Your task to perform on an android device: change notifications settings Image 0: 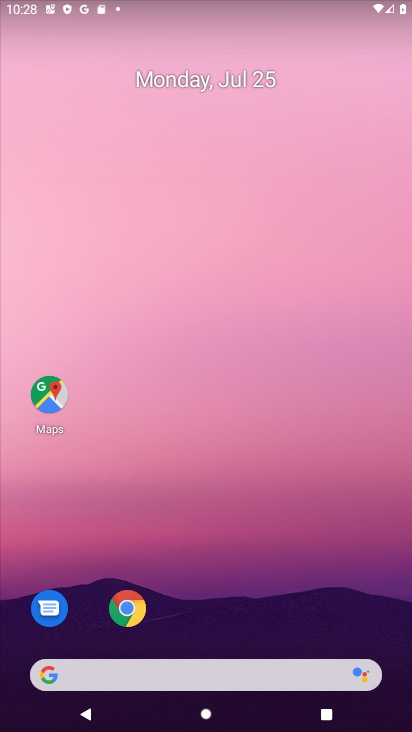
Step 0: drag from (227, 621) to (233, 350)
Your task to perform on an android device: change notifications settings Image 1: 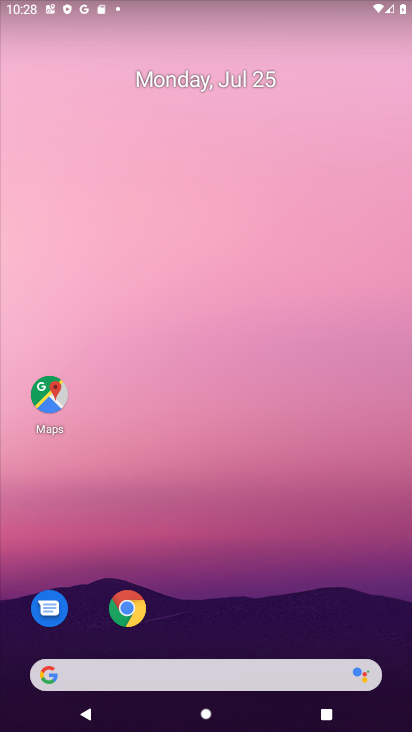
Step 1: drag from (263, 605) to (236, 147)
Your task to perform on an android device: change notifications settings Image 2: 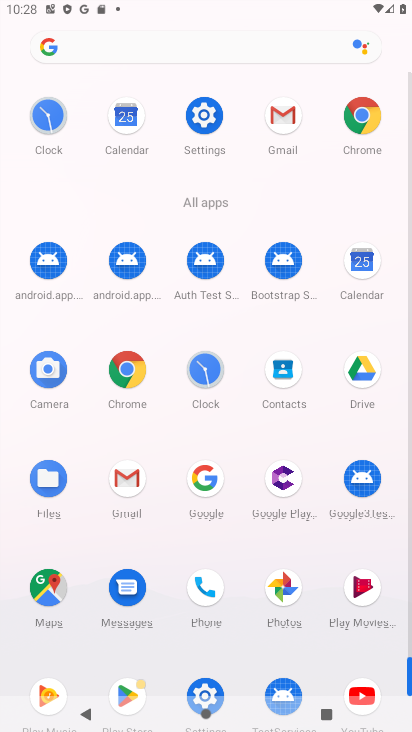
Step 2: click (193, 115)
Your task to perform on an android device: change notifications settings Image 3: 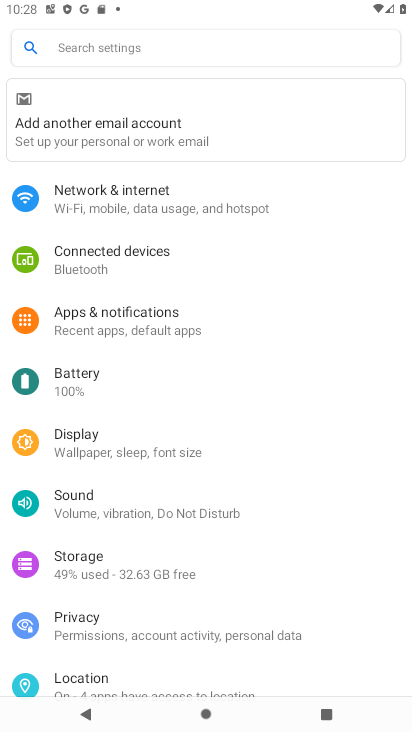
Step 3: click (146, 316)
Your task to perform on an android device: change notifications settings Image 4: 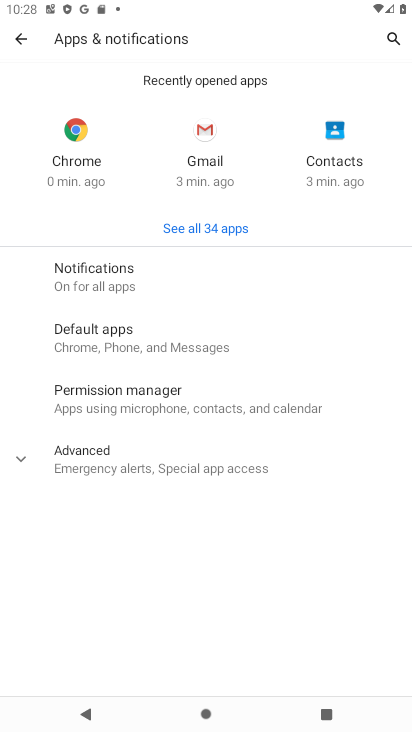
Step 4: click (119, 280)
Your task to perform on an android device: change notifications settings Image 5: 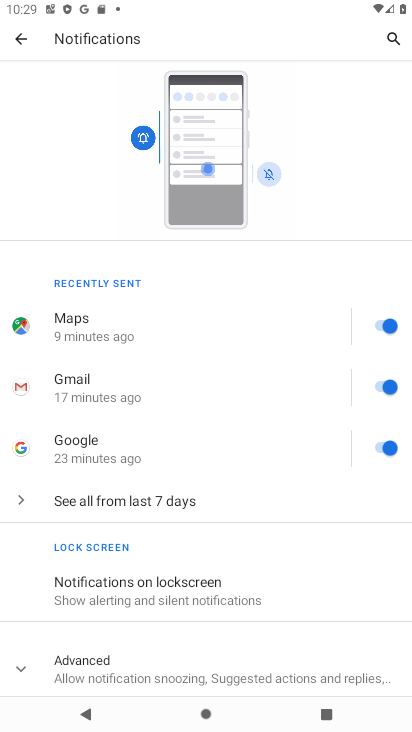
Step 5: click (176, 499)
Your task to perform on an android device: change notifications settings Image 6: 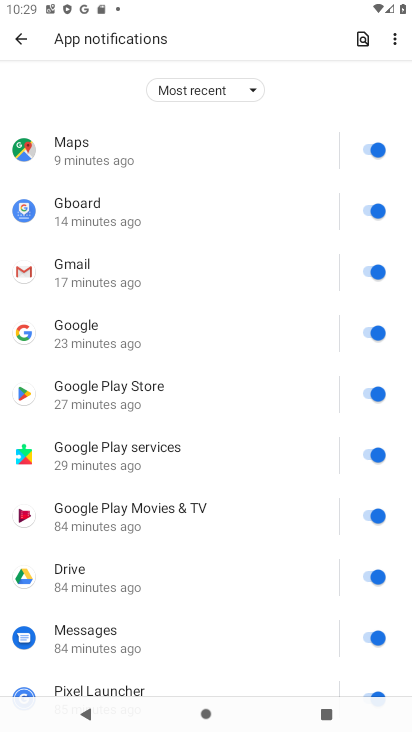
Step 6: click (373, 145)
Your task to perform on an android device: change notifications settings Image 7: 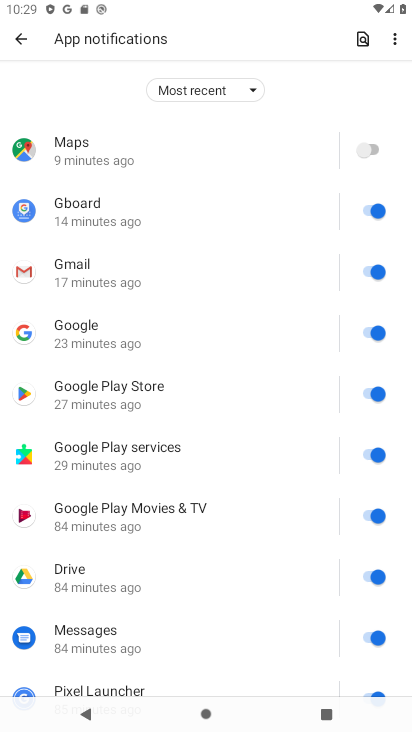
Step 7: click (368, 216)
Your task to perform on an android device: change notifications settings Image 8: 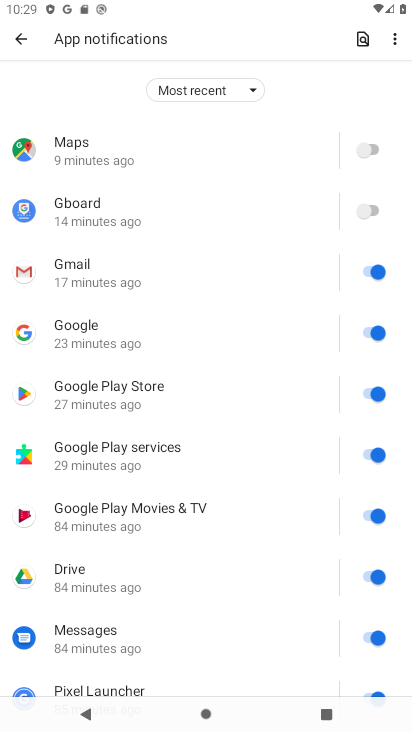
Step 8: click (376, 271)
Your task to perform on an android device: change notifications settings Image 9: 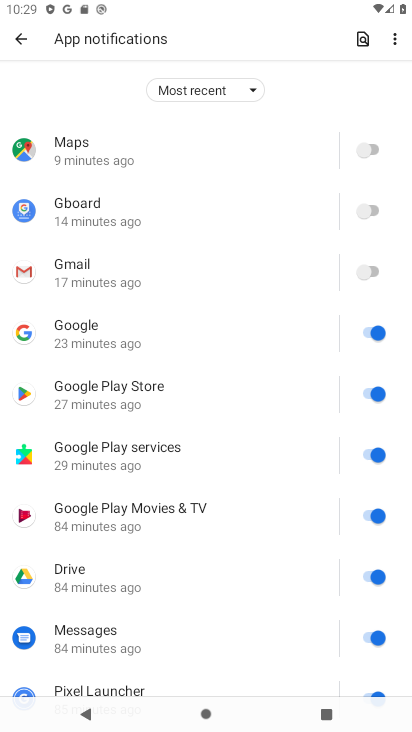
Step 9: click (376, 334)
Your task to perform on an android device: change notifications settings Image 10: 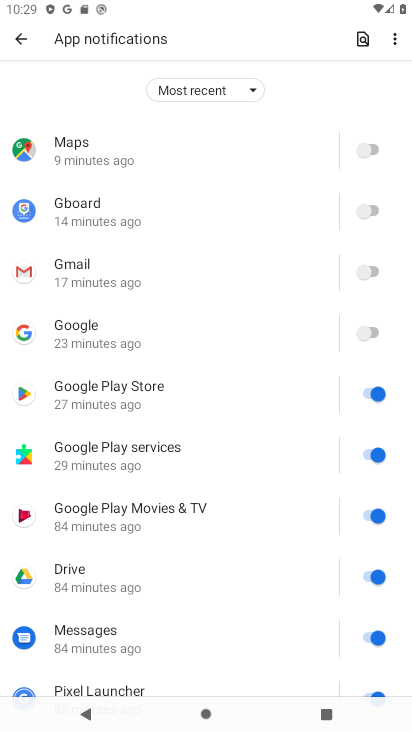
Step 10: click (369, 388)
Your task to perform on an android device: change notifications settings Image 11: 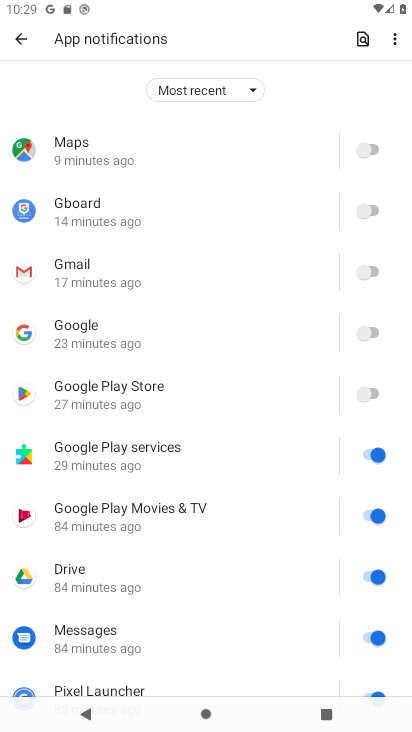
Step 11: click (377, 452)
Your task to perform on an android device: change notifications settings Image 12: 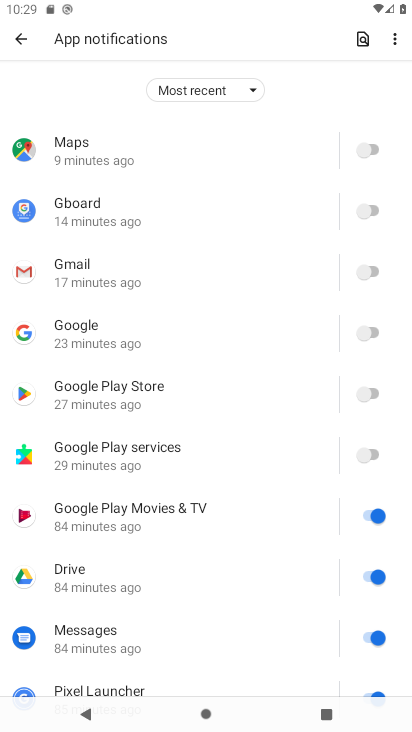
Step 12: click (368, 515)
Your task to perform on an android device: change notifications settings Image 13: 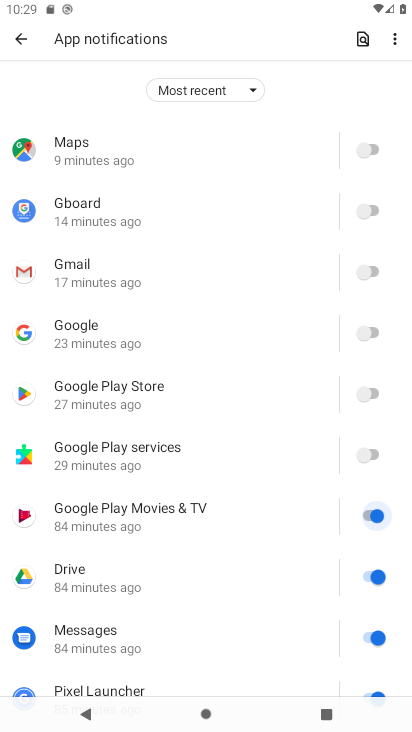
Step 13: click (376, 581)
Your task to perform on an android device: change notifications settings Image 14: 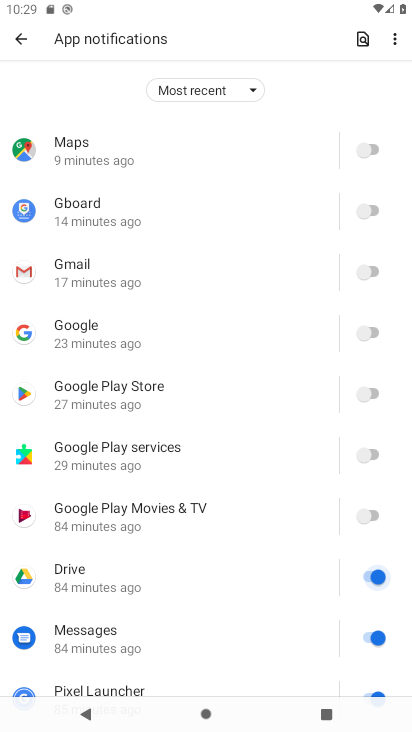
Step 14: click (374, 631)
Your task to perform on an android device: change notifications settings Image 15: 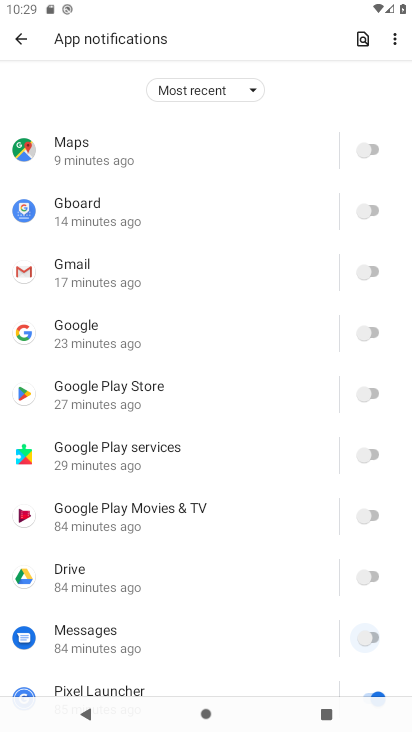
Step 15: drag from (253, 644) to (263, 284)
Your task to perform on an android device: change notifications settings Image 16: 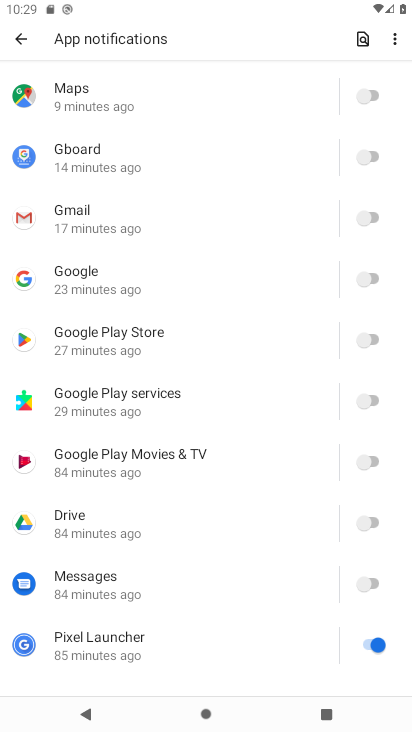
Step 16: click (372, 641)
Your task to perform on an android device: change notifications settings Image 17: 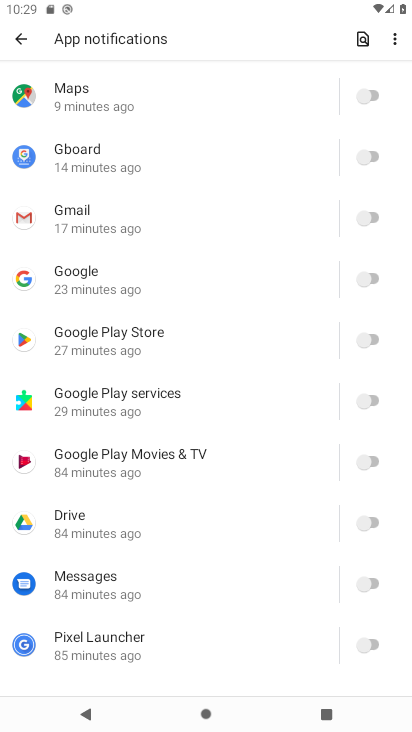
Step 17: task complete